Your task to perform on an android device: delete a single message in the gmail app Image 0: 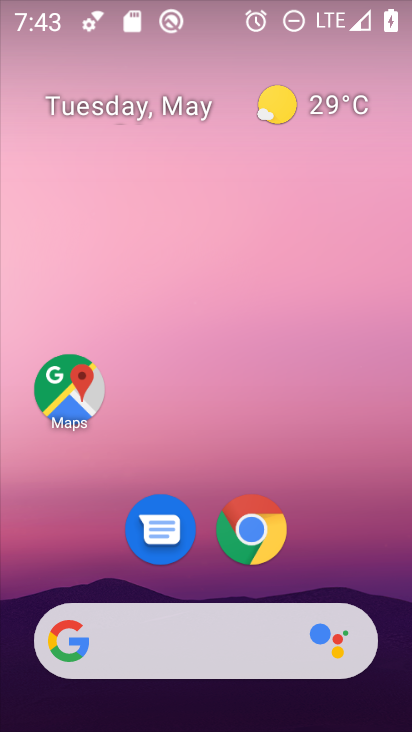
Step 0: drag from (377, 585) to (326, 131)
Your task to perform on an android device: delete a single message in the gmail app Image 1: 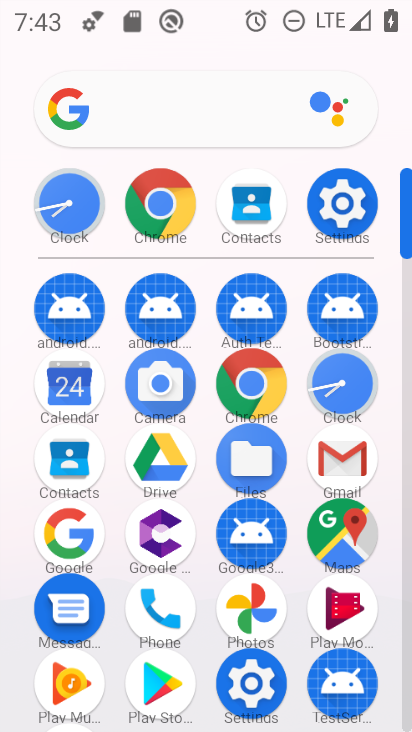
Step 1: click (349, 467)
Your task to perform on an android device: delete a single message in the gmail app Image 2: 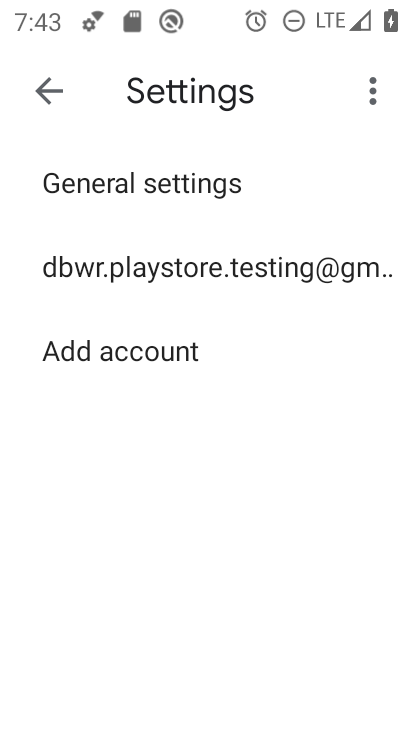
Step 2: task complete